Your task to perform on an android device: toggle notification dots Image 0: 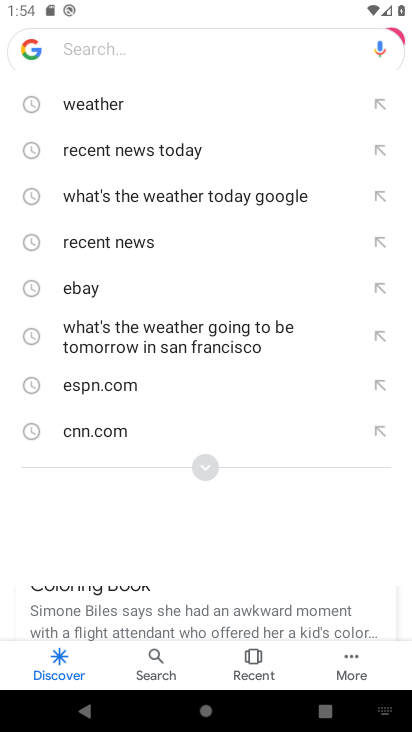
Step 0: press home button
Your task to perform on an android device: toggle notification dots Image 1: 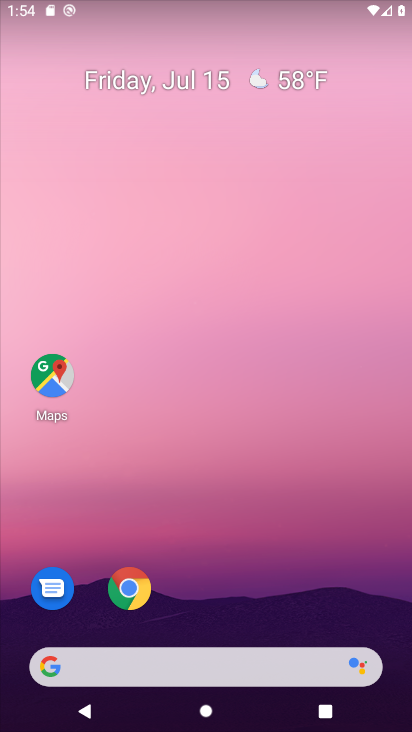
Step 1: drag from (245, 576) to (237, 155)
Your task to perform on an android device: toggle notification dots Image 2: 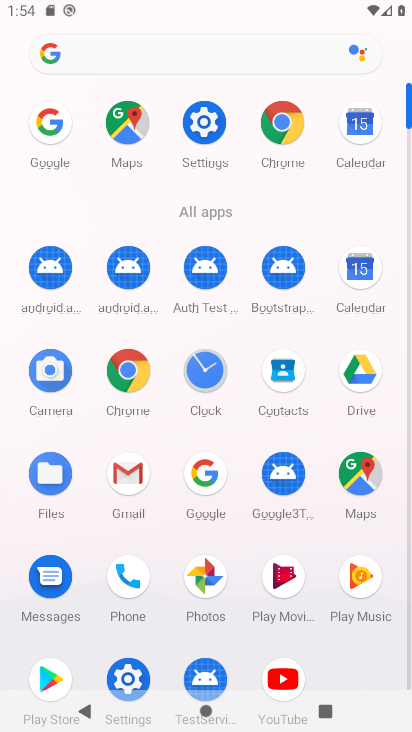
Step 2: click (127, 675)
Your task to perform on an android device: toggle notification dots Image 3: 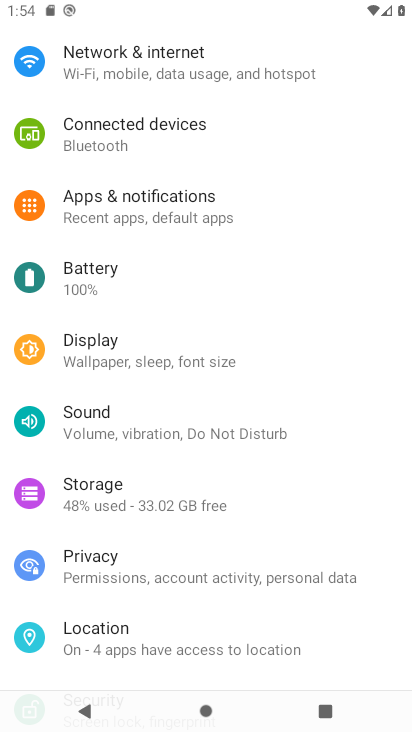
Step 3: click (190, 213)
Your task to perform on an android device: toggle notification dots Image 4: 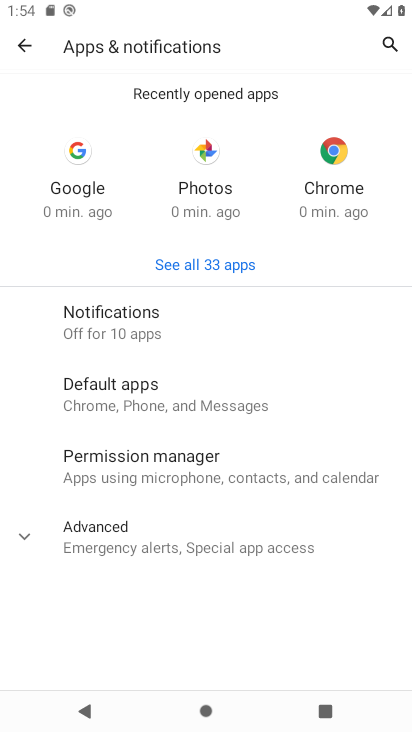
Step 4: click (132, 318)
Your task to perform on an android device: toggle notification dots Image 5: 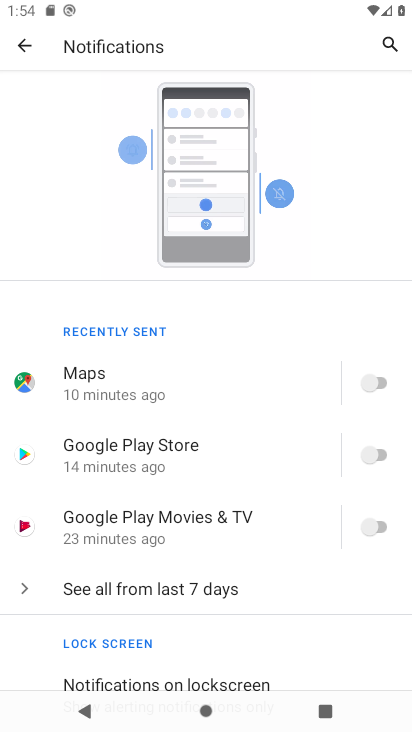
Step 5: drag from (181, 594) to (174, 276)
Your task to perform on an android device: toggle notification dots Image 6: 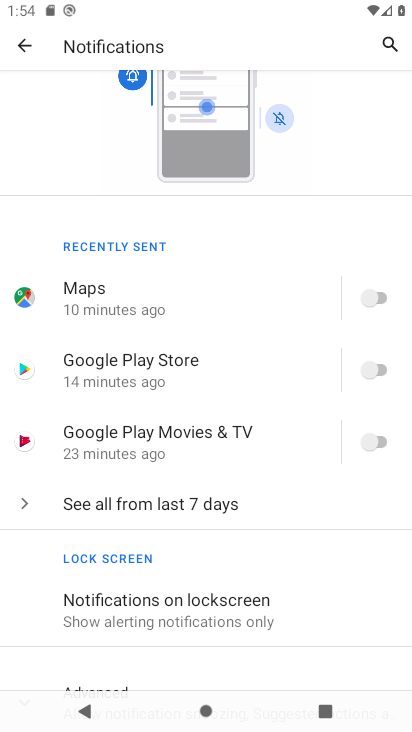
Step 6: drag from (218, 654) to (218, 334)
Your task to perform on an android device: toggle notification dots Image 7: 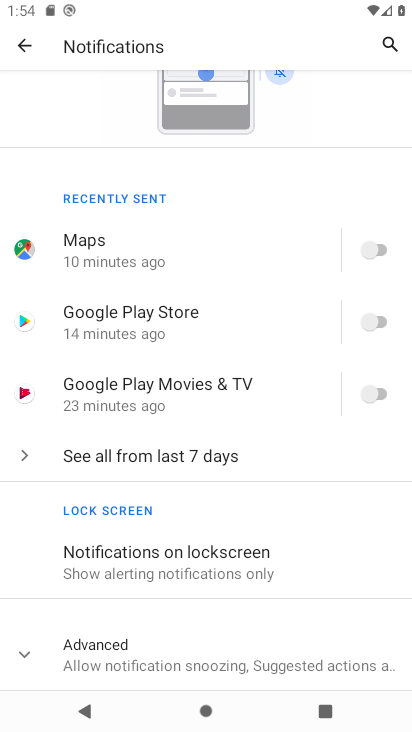
Step 7: click (271, 662)
Your task to perform on an android device: toggle notification dots Image 8: 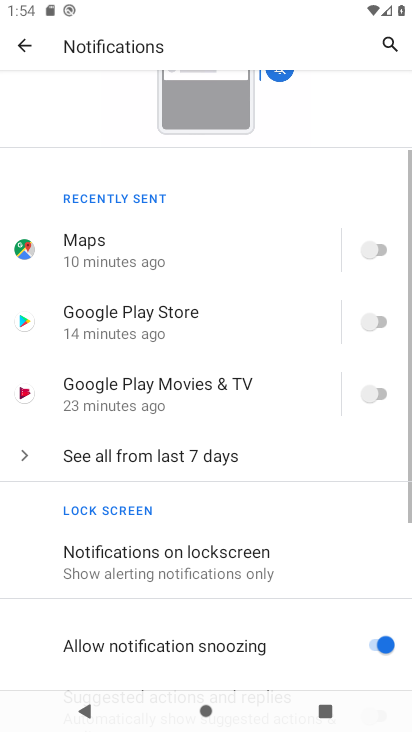
Step 8: drag from (271, 662) to (241, 360)
Your task to perform on an android device: toggle notification dots Image 9: 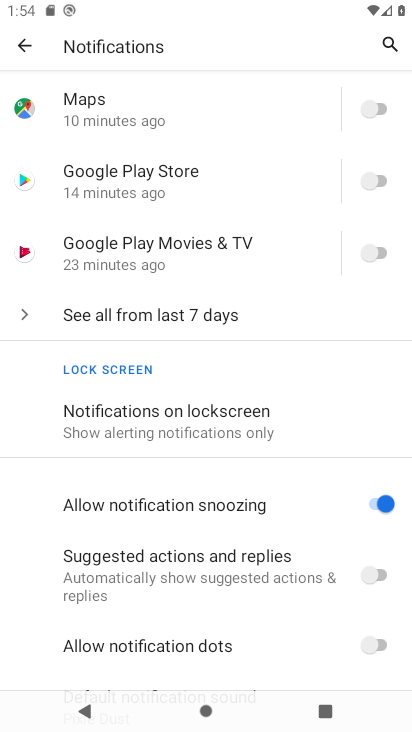
Step 9: click (374, 651)
Your task to perform on an android device: toggle notification dots Image 10: 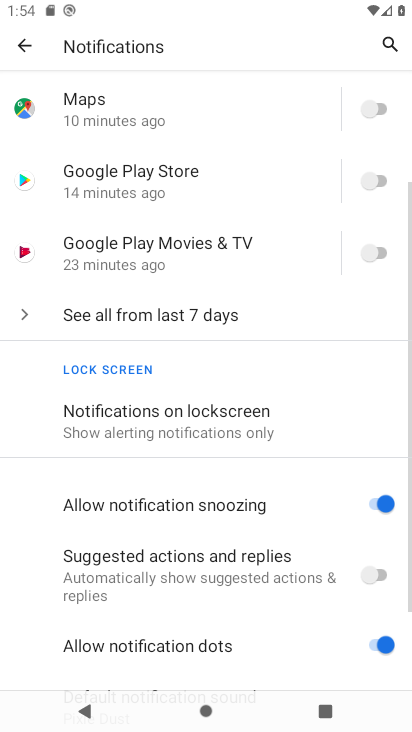
Step 10: task complete